Your task to perform on an android device: set default search engine in the chrome app Image 0: 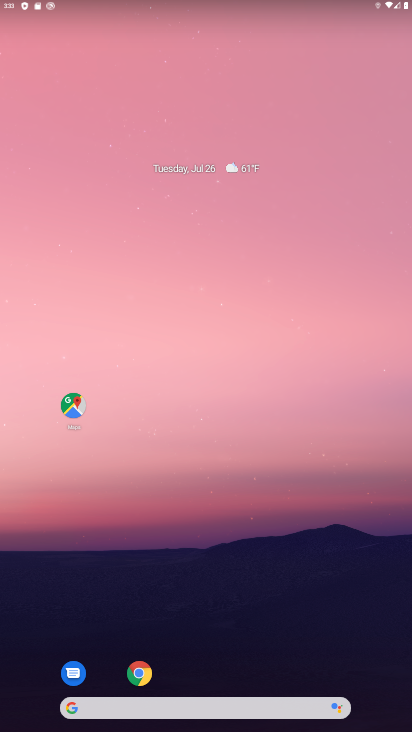
Step 0: press home button
Your task to perform on an android device: set default search engine in the chrome app Image 1: 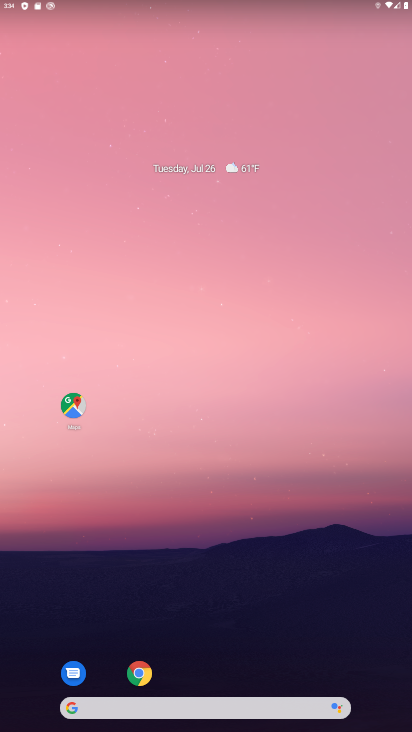
Step 1: click (135, 669)
Your task to perform on an android device: set default search engine in the chrome app Image 2: 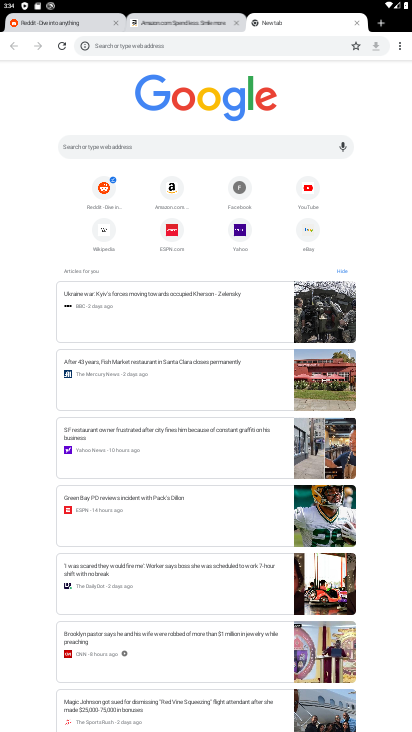
Step 2: click (400, 45)
Your task to perform on an android device: set default search engine in the chrome app Image 3: 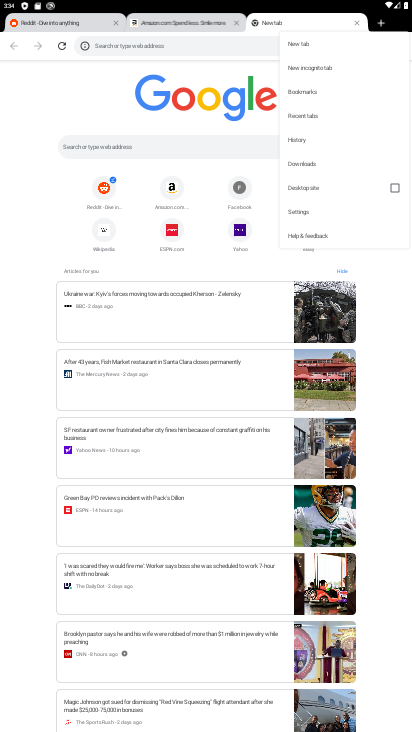
Step 3: click (312, 211)
Your task to perform on an android device: set default search engine in the chrome app Image 4: 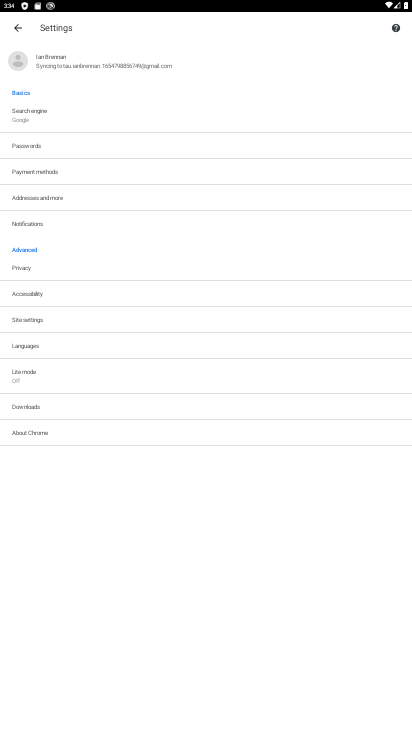
Step 4: click (54, 113)
Your task to perform on an android device: set default search engine in the chrome app Image 5: 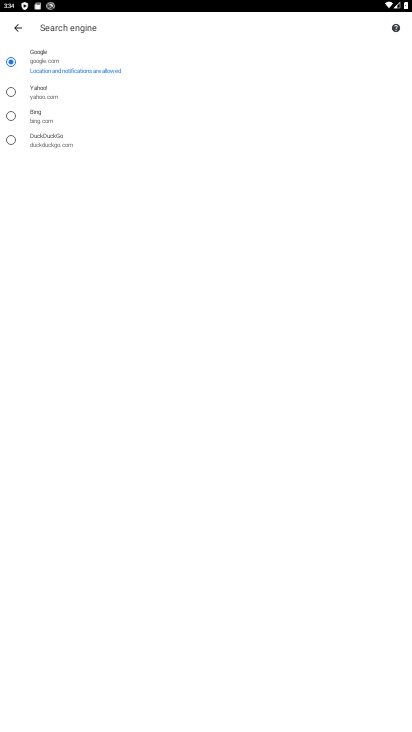
Step 5: click (11, 113)
Your task to perform on an android device: set default search engine in the chrome app Image 6: 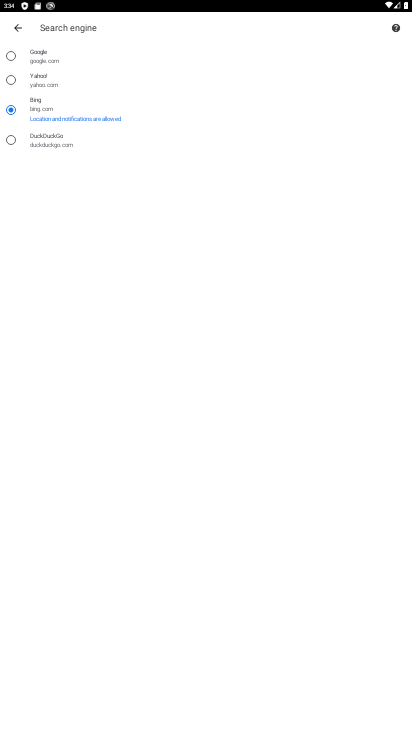
Step 6: task complete